Your task to perform on an android device: Find coffee shops on Maps Image 0: 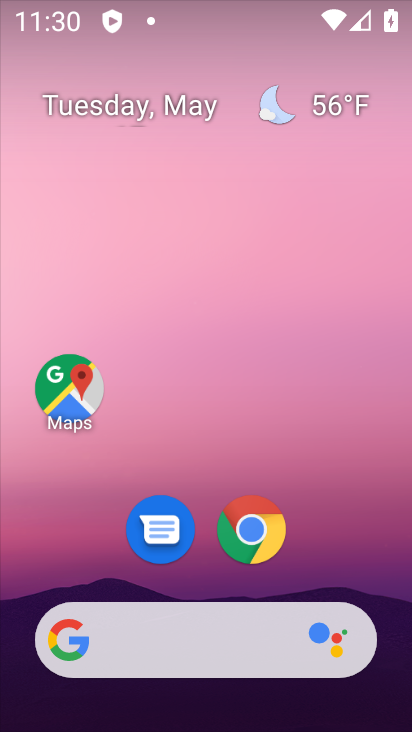
Step 0: click (353, 247)
Your task to perform on an android device: Find coffee shops on Maps Image 1: 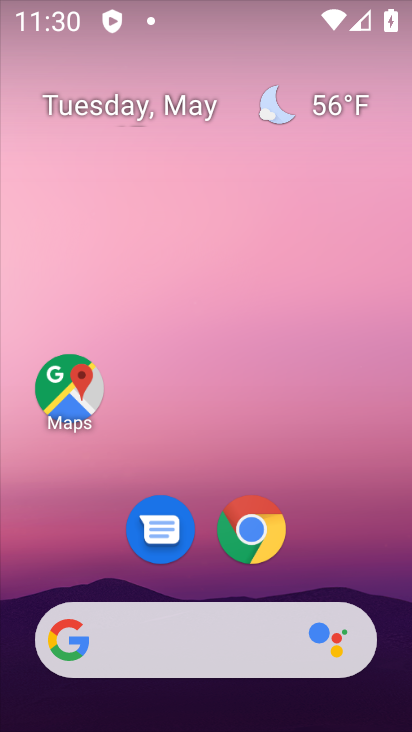
Step 1: drag from (391, 610) to (387, 280)
Your task to perform on an android device: Find coffee shops on Maps Image 2: 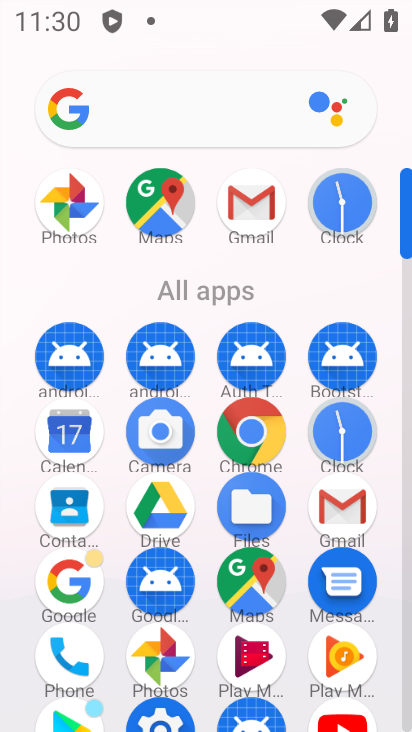
Step 2: click (239, 576)
Your task to perform on an android device: Find coffee shops on Maps Image 3: 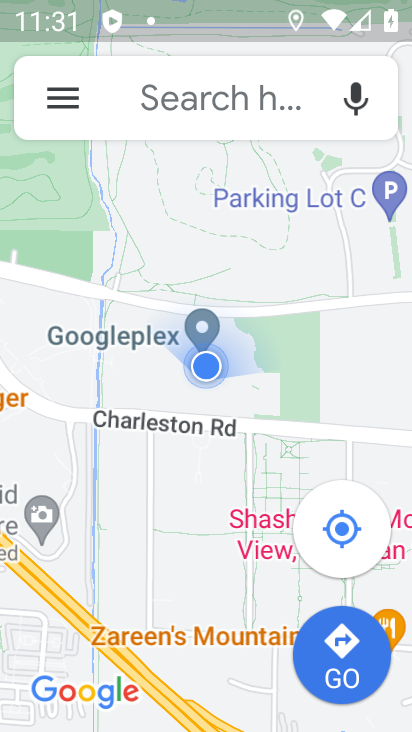
Step 3: click (157, 109)
Your task to perform on an android device: Find coffee shops on Maps Image 4: 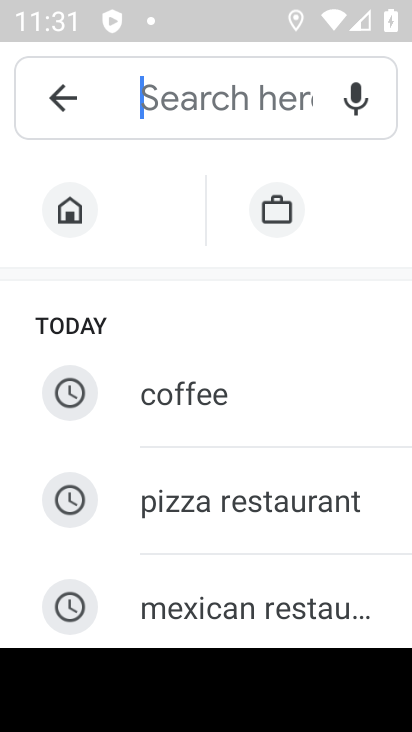
Step 4: type "coffee shops"
Your task to perform on an android device: Find coffee shops on Maps Image 5: 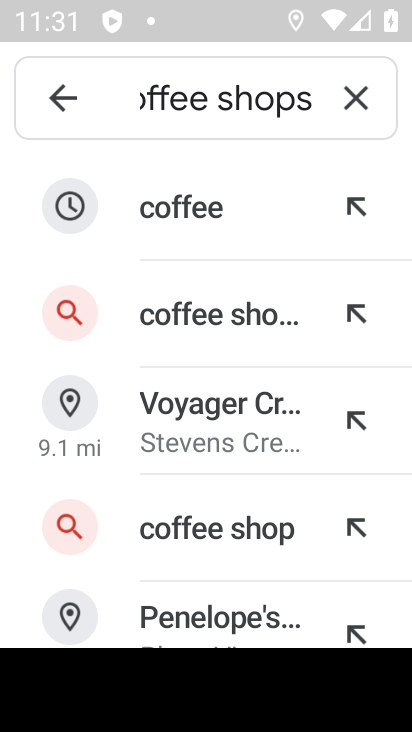
Step 5: click (226, 316)
Your task to perform on an android device: Find coffee shops on Maps Image 6: 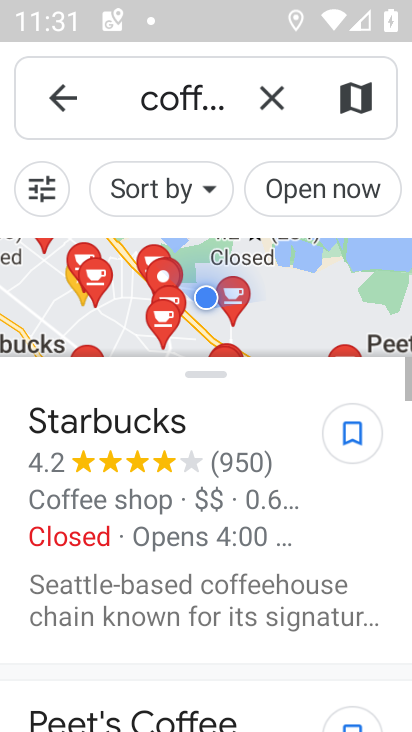
Step 6: task complete